Your task to perform on an android device: open sync settings in chrome Image 0: 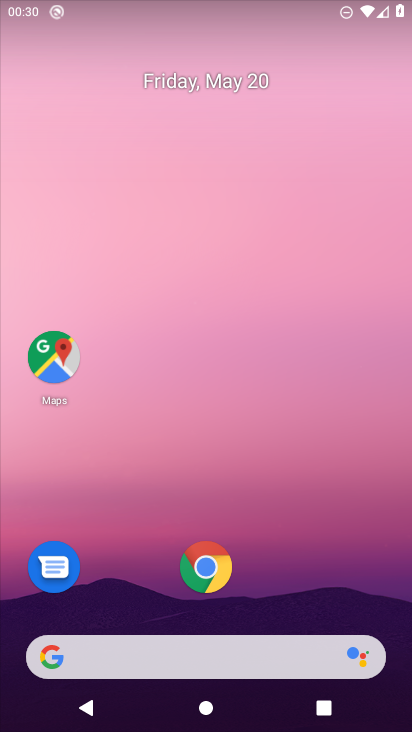
Step 0: press home button
Your task to perform on an android device: open sync settings in chrome Image 1: 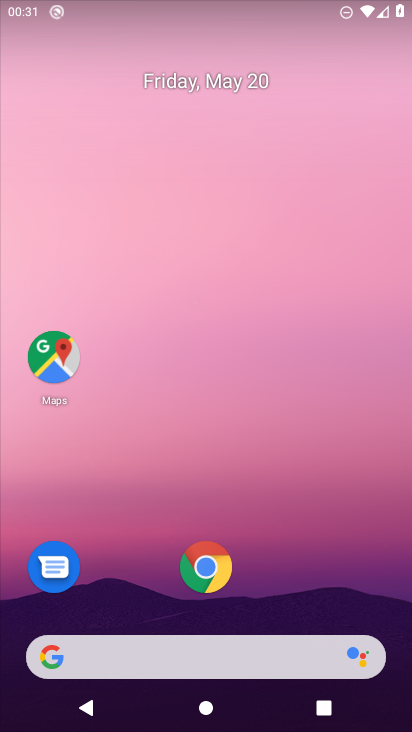
Step 1: click (206, 567)
Your task to perform on an android device: open sync settings in chrome Image 2: 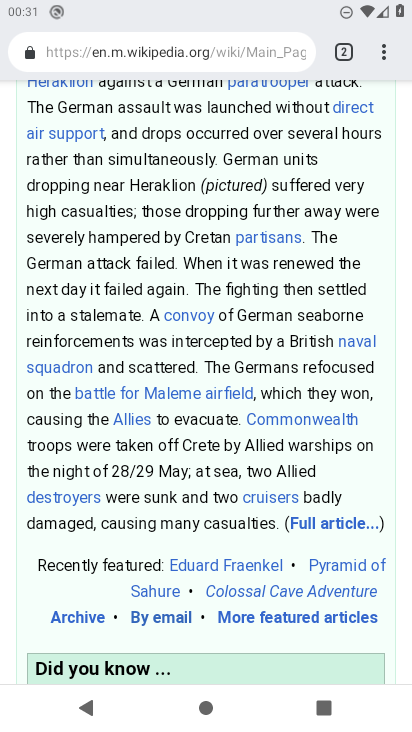
Step 2: click (381, 51)
Your task to perform on an android device: open sync settings in chrome Image 3: 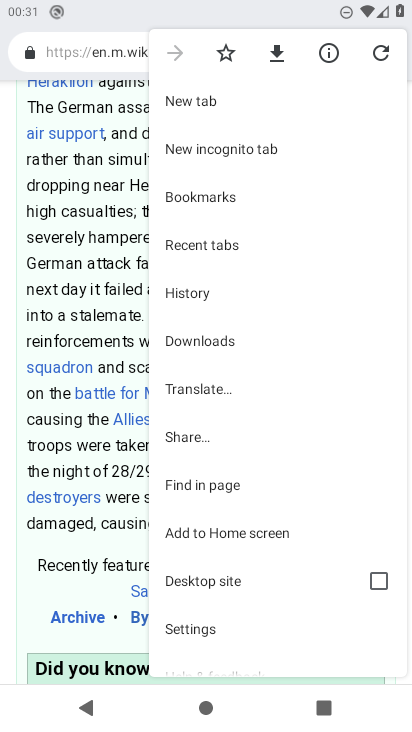
Step 3: click (218, 628)
Your task to perform on an android device: open sync settings in chrome Image 4: 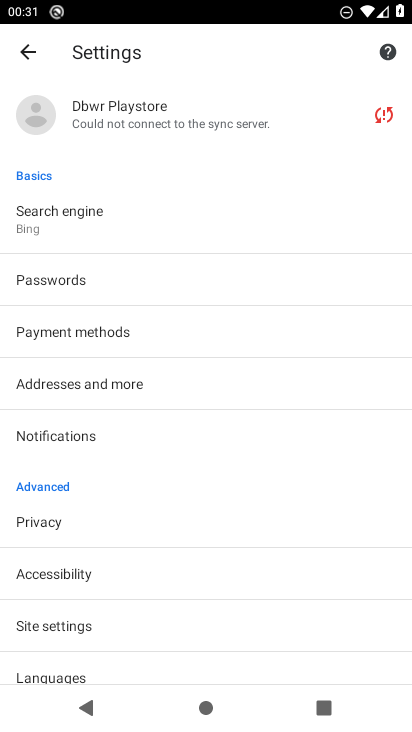
Step 4: drag from (150, 647) to (186, 304)
Your task to perform on an android device: open sync settings in chrome Image 5: 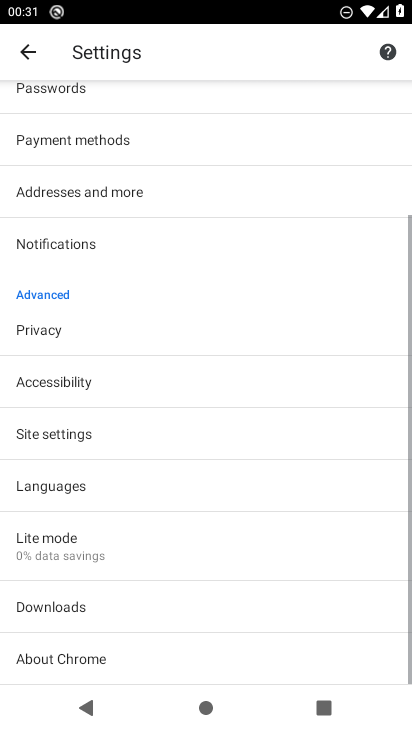
Step 5: drag from (198, 106) to (181, 731)
Your task to perform on an android device: open sync settings in chrome Image 6: 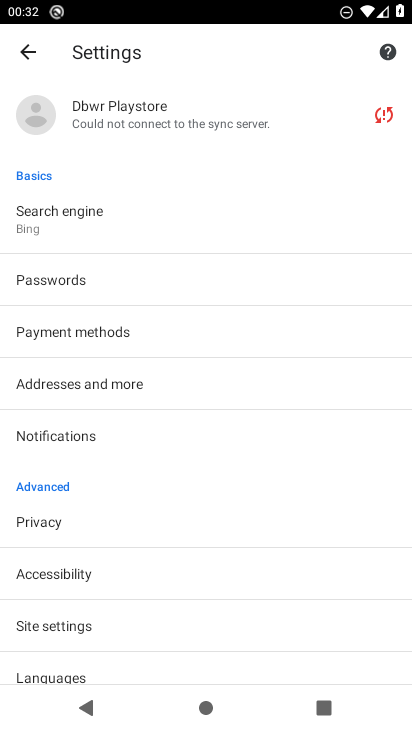
Step 6: click (149, 112)
Your task to perform on an android device: open sync settings in chrome Image 7: 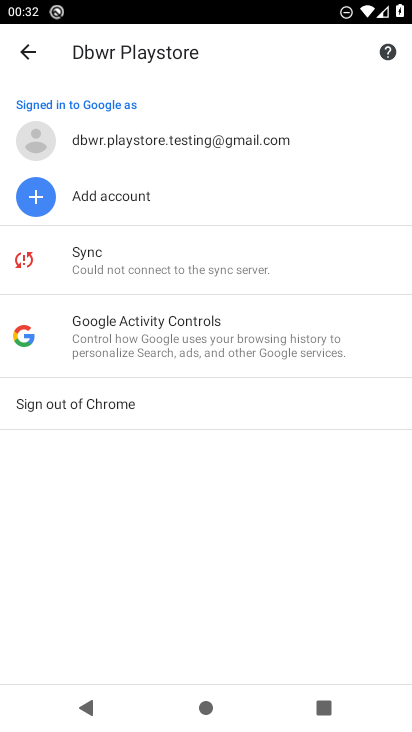
Step 7: click (135, 250)
Your task to perform on an android device: open sync settings in chrome Image 8: 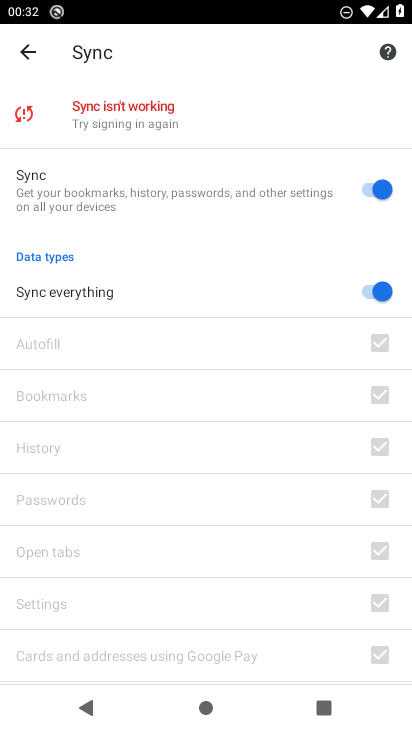
Step 8: task complete